Your task to perform on an android device: Show me productivity apps on the Play Store Image 0: 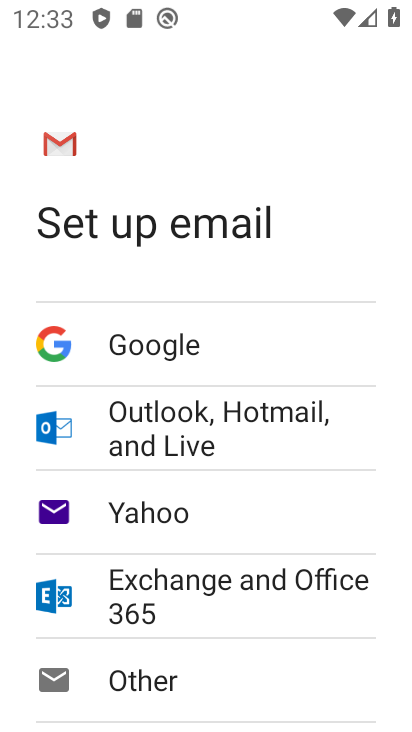
Step 0: press home button
Your task to perform on an android device: Show me productivity apps on the Play Store Image 1: 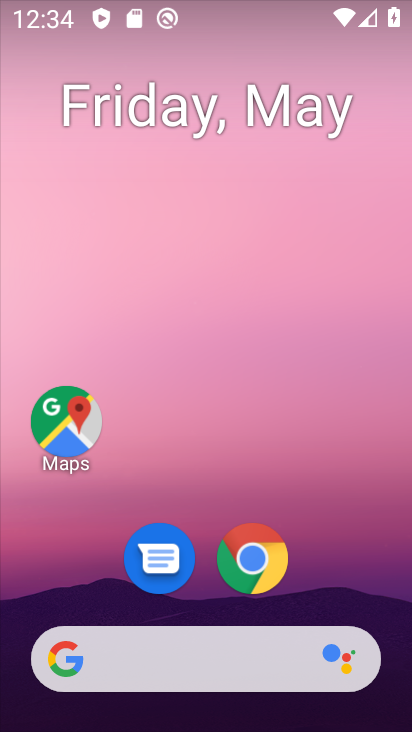
Step 1: drag from (363, 605) to (258, 0)
Your task to perform on an android device: Show me productivity apps on the Play Store Image 2: 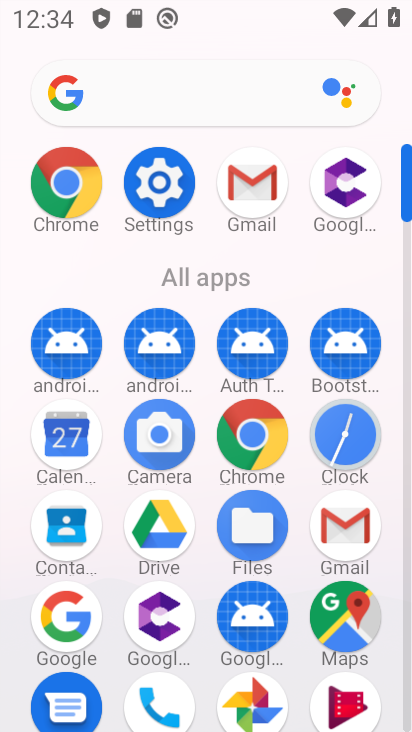
Step 2: click (411, 676)
Your task to perform on an android device: Show me productivity apps on the Play Store Image 3: 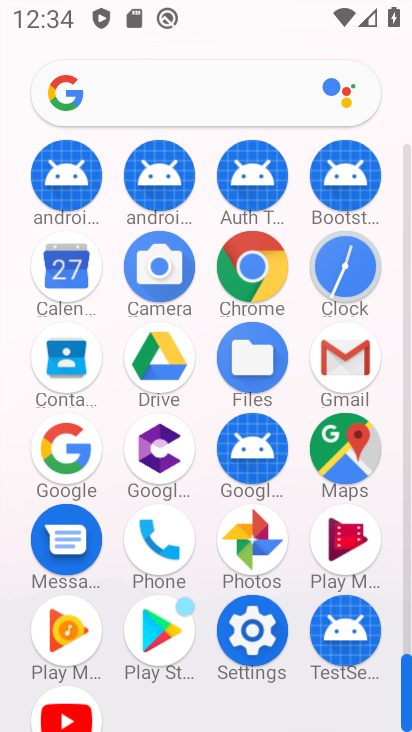
Step 3: click (177, 639)
Your task to perform on an android device: Show me productivity apps on the Play Store Image 4: 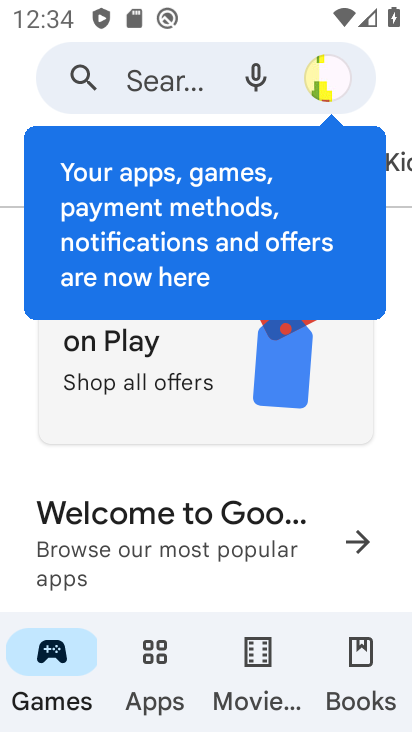
Step 4: click (150, 658)
Your task to perform on an android device: Show me productivity apps on the Play Store Image 5: 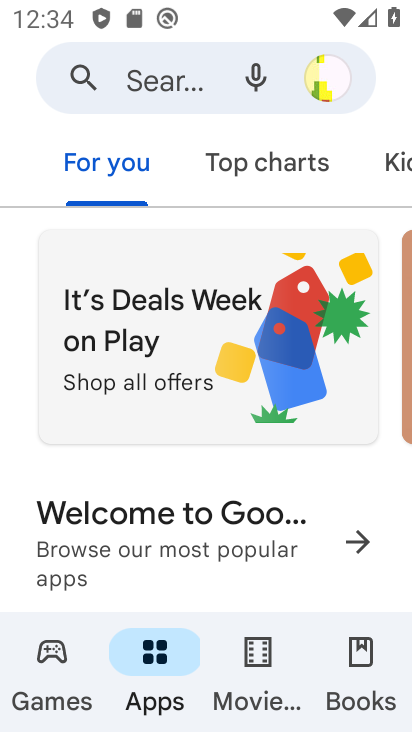
Step 5: drag from (345, 161) to (68, 180)
Your task to perform on an android device: Show me productivity apps on the Play Store Image 6: 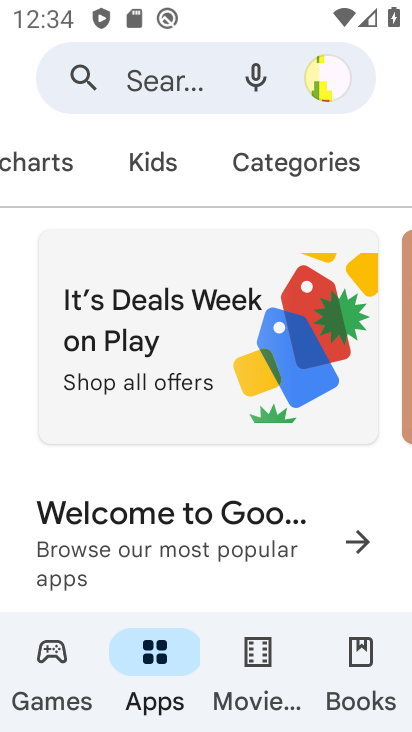
Step 6: click (256, 164)
Your task to perform on an android device: Show me productivity apps on the Play Store Image 7: 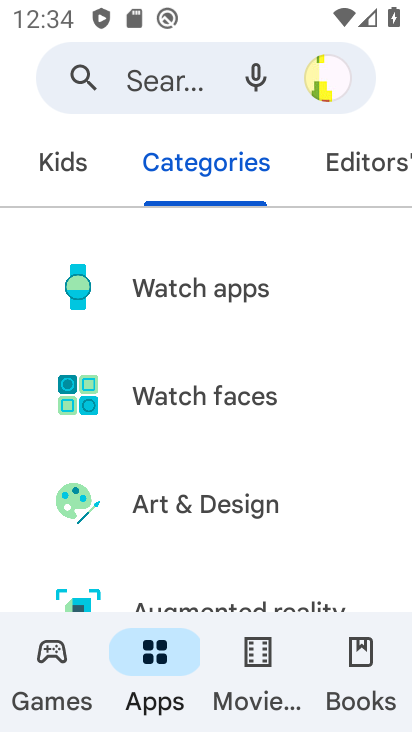
Step 7: drag from (213, 583) to (199, 155)
Your task to perform on an android device: Show me productivity apps on the Play Store Image 8: 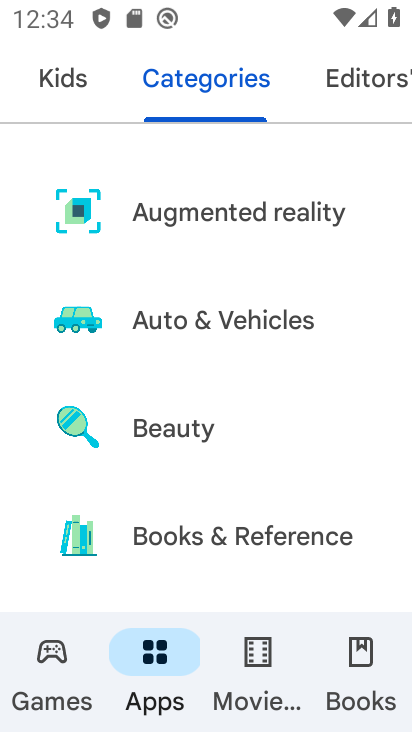
Step 8: drag from (197, 578) to (191, 205)
Your task to perform on an android device: Show me productivity apps on the Play Store Image 9: 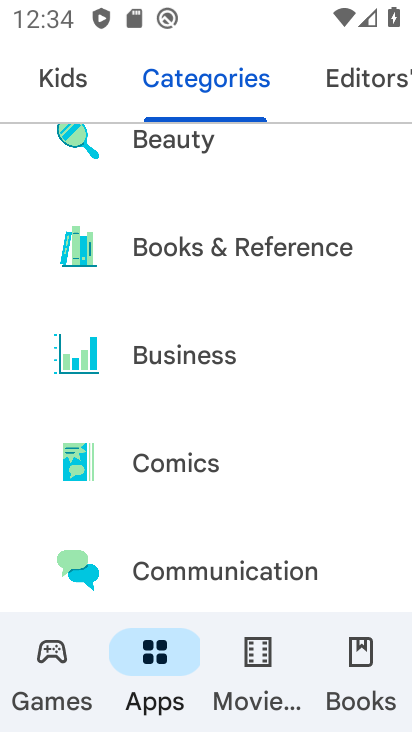
Step 9: drag from (183, 518) to (176, 139)
Your task to perform on an android device: Show me productivity apps on the Play Store Image 10: 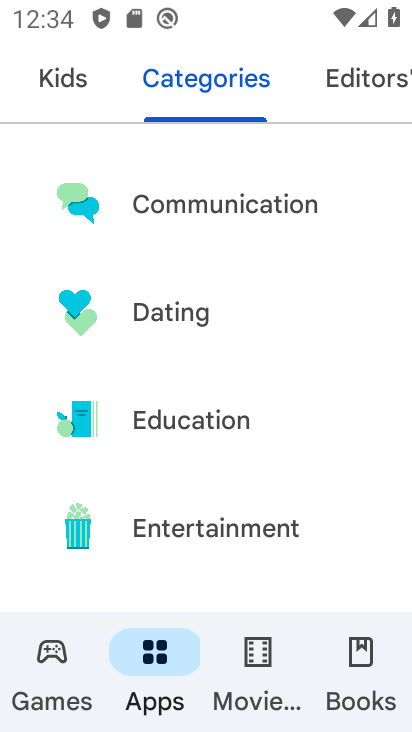
Step 10: drag from (175, 568) to (145, 185)
Your task to perform on an android device: Show me productivity apps on the Play Store Image 11: 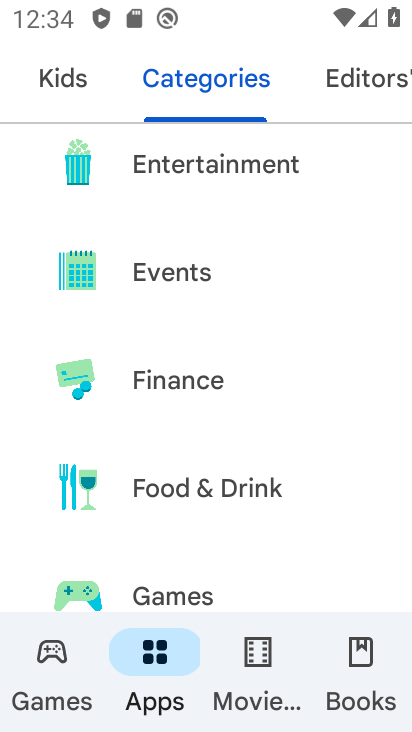
Step 11: drag from (178, 546) to (194, 99)
Your task to perform on an android device: Show me productivity apps on the Play Store Image 12: 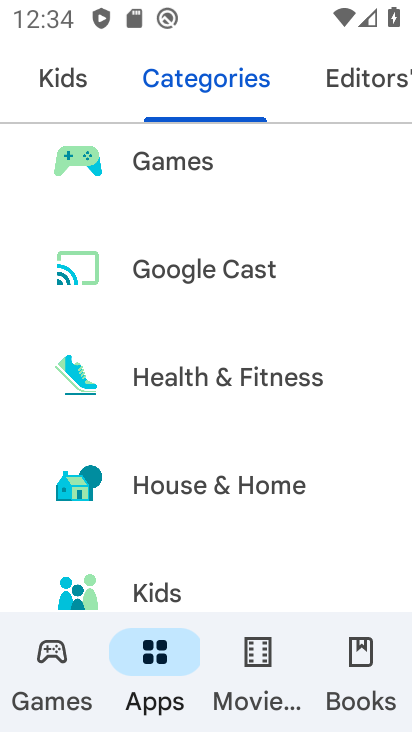
Step 12: drag from (174, 531) to (141, 162)
Your task to perform on an android device: Show me productivity apps on the Play Store Image 13: 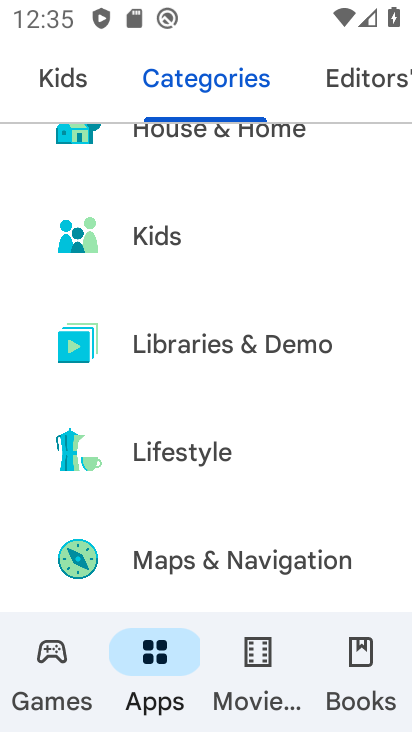
Step 13: drag from (166, 494) to (156, 146)
Your task to perform on an android device: Show me productivity apps on the Play Store Image 14: 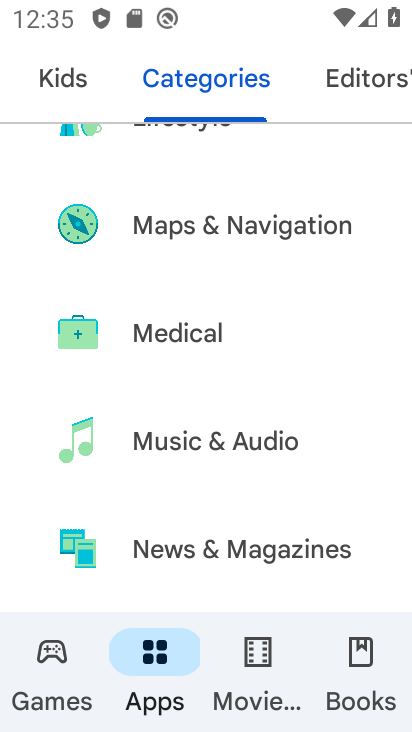
Step 14: drag from (183, 496) to (146, 183)
Your task to perform on an android device: Show me productivity apps on the Play Store Image 15: 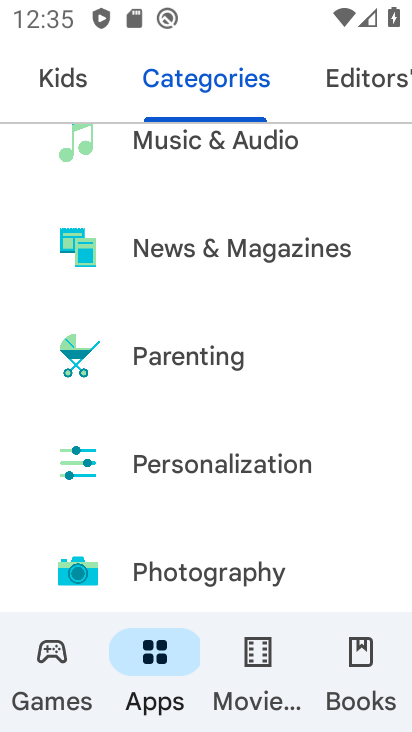
Step 15: drag from (164, 523) to (157, 224)
Your task to perform on an android device: Show me productivity apps on the Play Store Image 16: 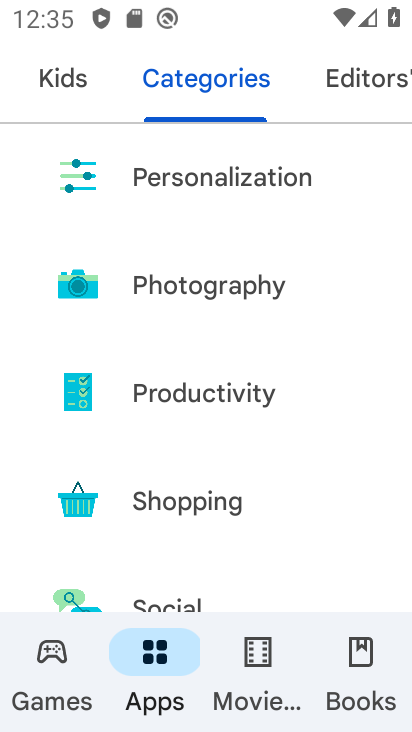
Step 16: click (194, 402)
Your task to perform on an android device: Show me productivity apps on the Play Store Image 17: 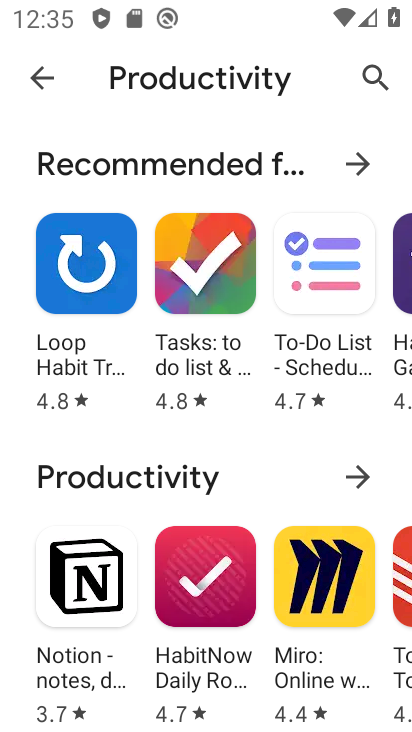
Step 17: task complete